Your task to perform on an android device: star an email in the gmail app Image 0: 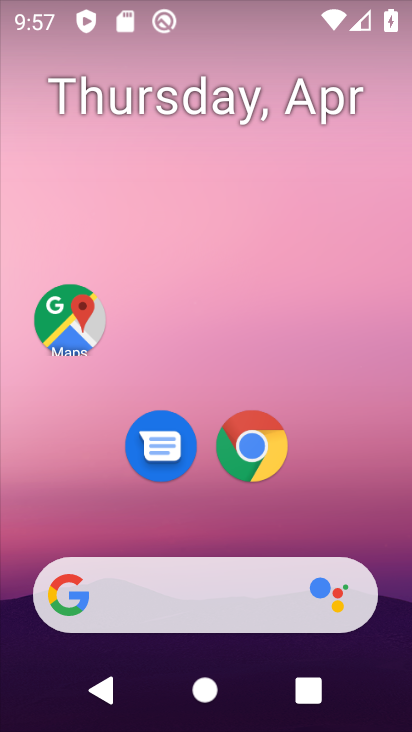
Step 0: drag from (361, 344) to (234, 7)
Your task to perform on an android device: star an email in the gmail app Image 1: 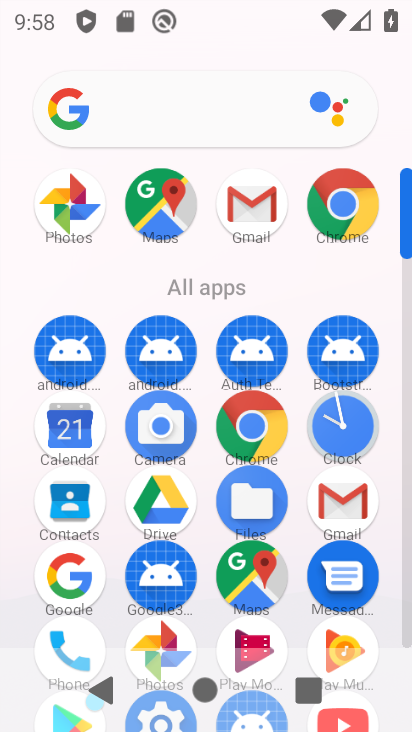
Step 1: click (263, 214)
Your task to perform on an android device: star an email in the gmail app Image 2: 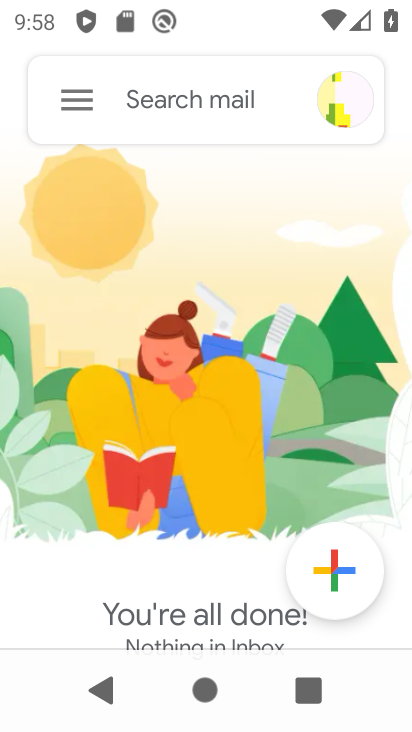
Step 2: task complete